Your task to perform on an android device: Go to display settings Image 0: 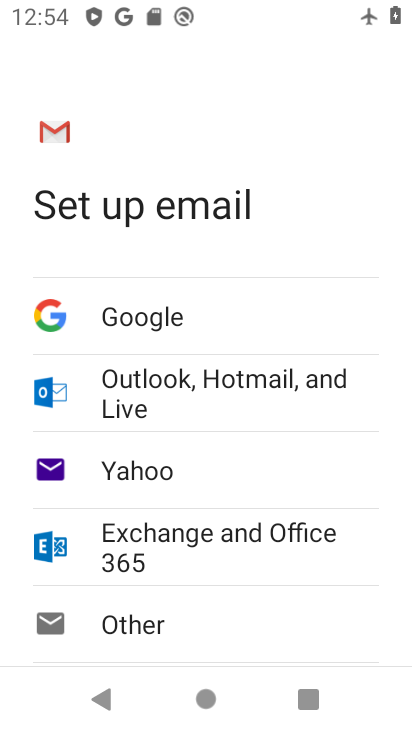
Step 0: press home button
Your task to perform on an android device: Go to display settings Image 1: 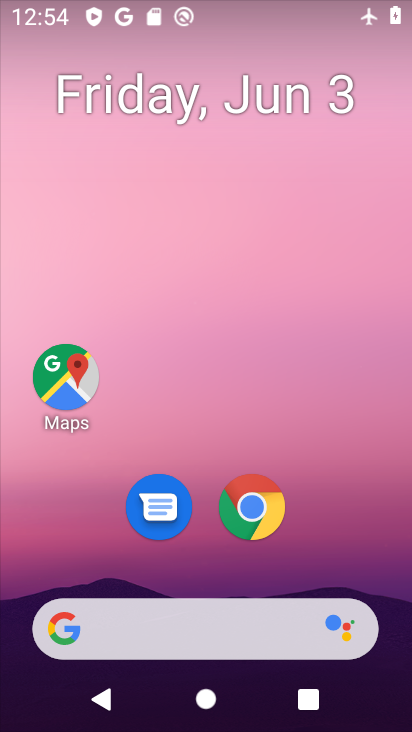
Step 1: drag from (333, 522) to (348, 196)
Your task to perform on an android device: Go to display settings Image 2: 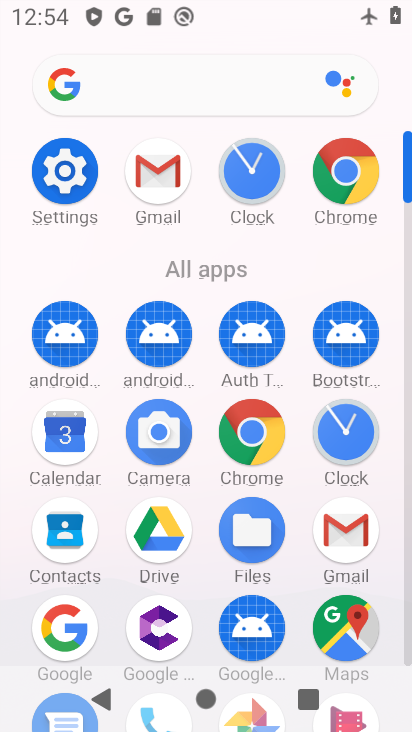
Step 2: click (59, 169)
Your task to perform on an android device: Go to display settings Image 3: 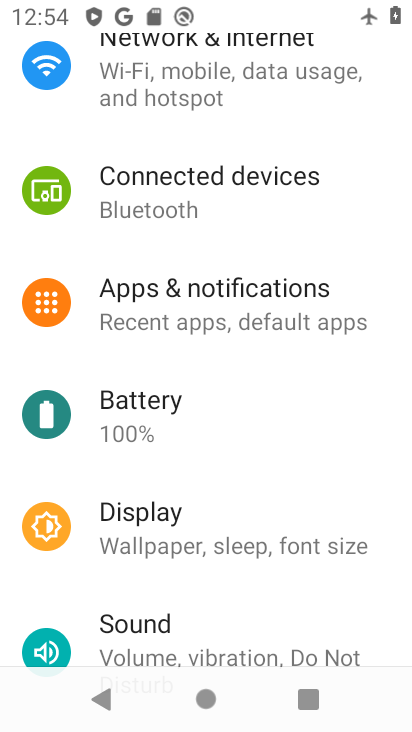
Step 3: drag from (242, 210) to (257, 557)
Your task to perform on an android device: Go to display settings Image 4: 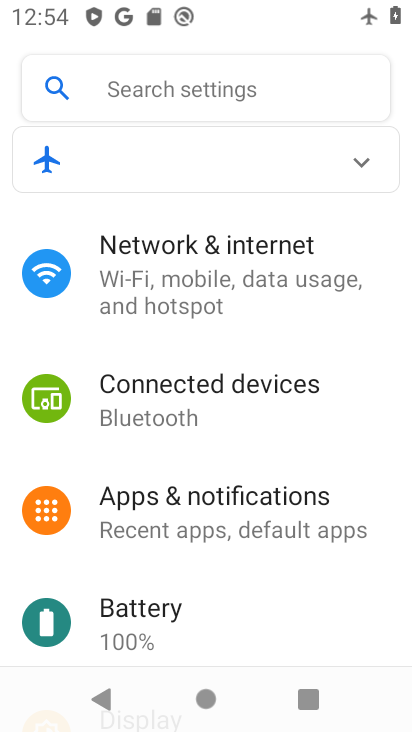
Step 4: drag from (217, 598) to (224, 416)
Your task to perform on an android device: Go to display settings Image 5: 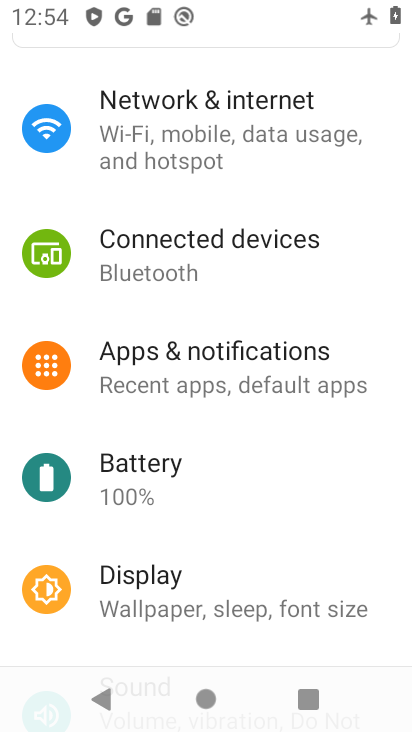
Step 5: drag from (205, 519) to (239, 256)
Your task to perform on an android device: Go to display settings Image 6: 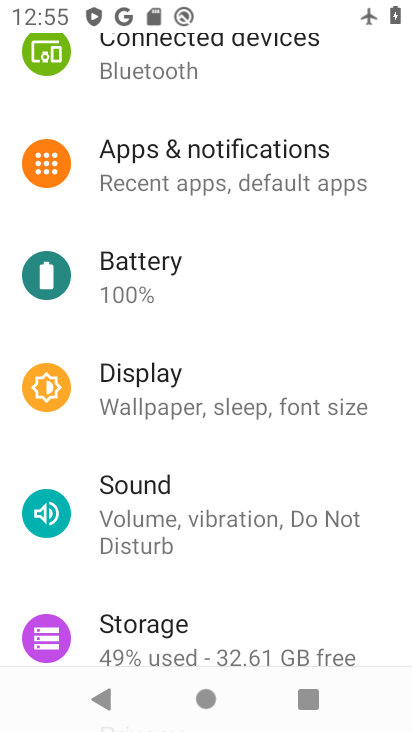
Step 6: click (301, 383)
Your task to perform on an android device: Go to display settings Image 7: 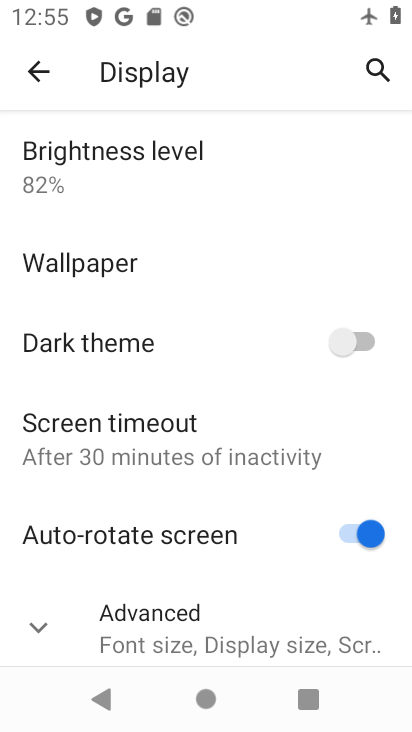
Step 7: task complete